Your task to perform on an android device: Open display settings Image 0: 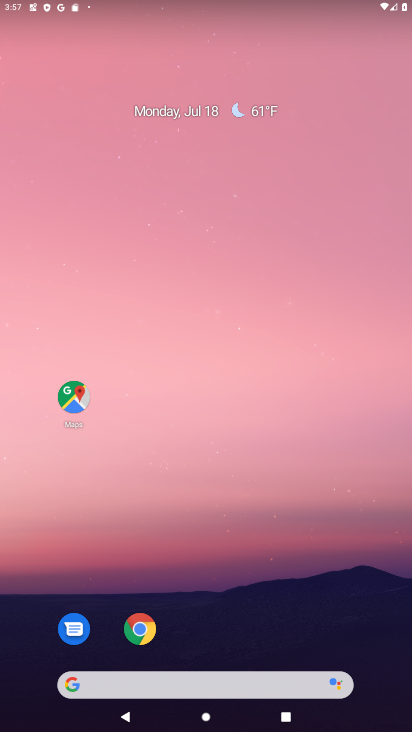
Step 0: drag from (198, 679) to (180, 362)
Your task to perform on an android device: Open display settings Image 1: 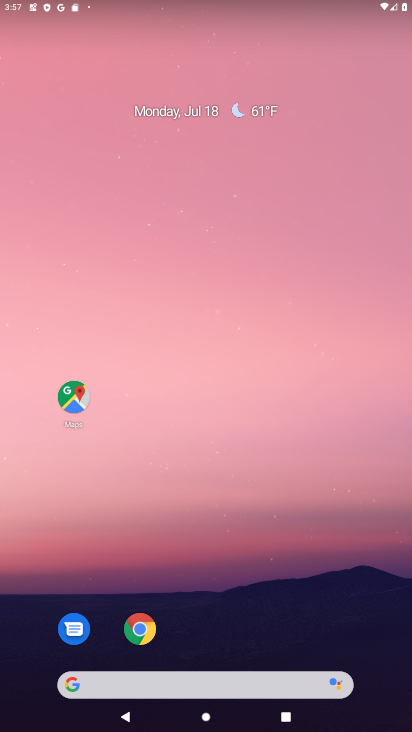
Step 1: drag from (278, 658) to (279, 138)
Your task to perform on an android device: Open display settings Image 2: 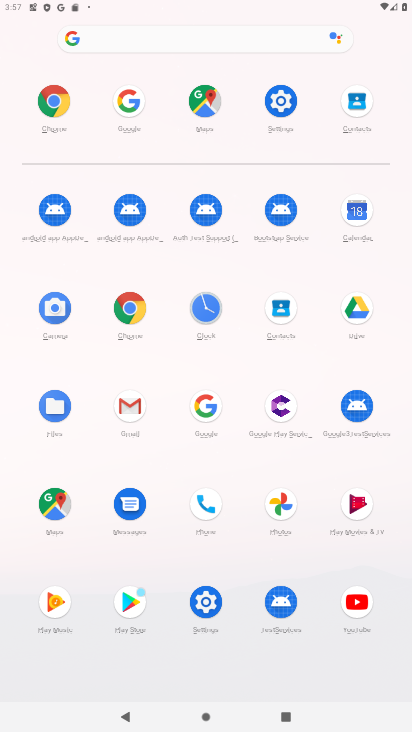
Step 2: click (289, 100)
Your task to perform on an android device: Open display settings Image 3: 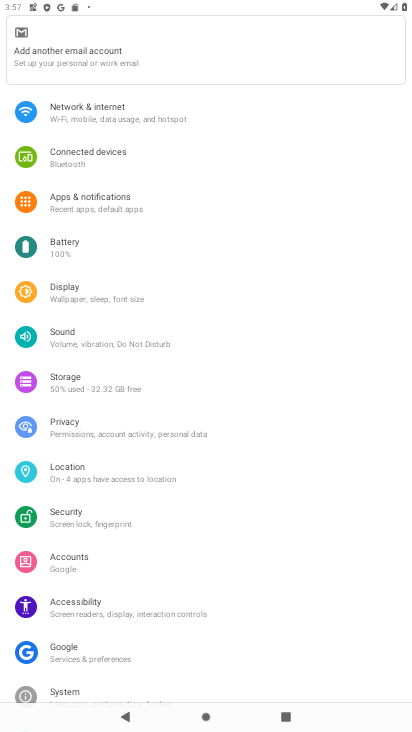
Step 3: click (66, 291)
Your task to perform on an android device: Open display settings Image 4: 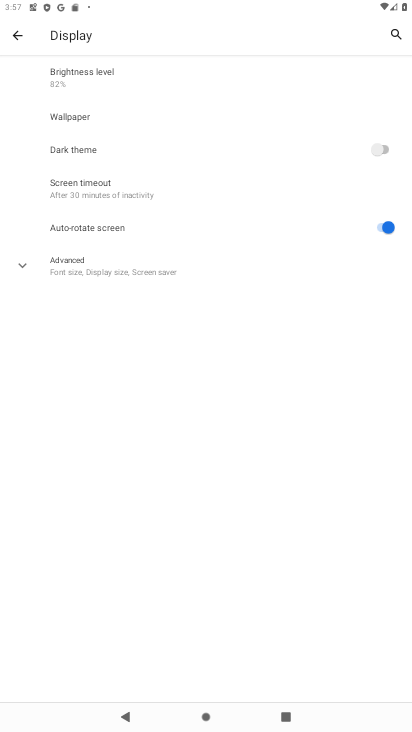
Step 4: click (66, 265)
Your task to perform on an android device: Open display settings Image 5: 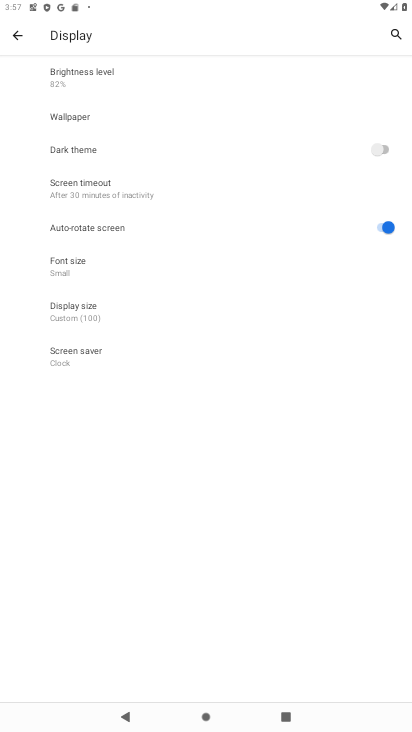
Step 5: task complete